Your task to perform on an android device: delete a single message in the gmail app Image 0: 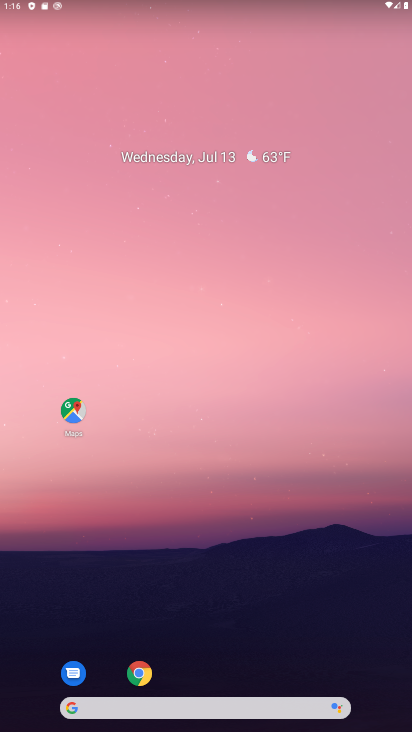
Step 0: drag from (274, 658) to (271, 285)
Your task to perform on an android device: delete a single message in the gmail app Image 1: 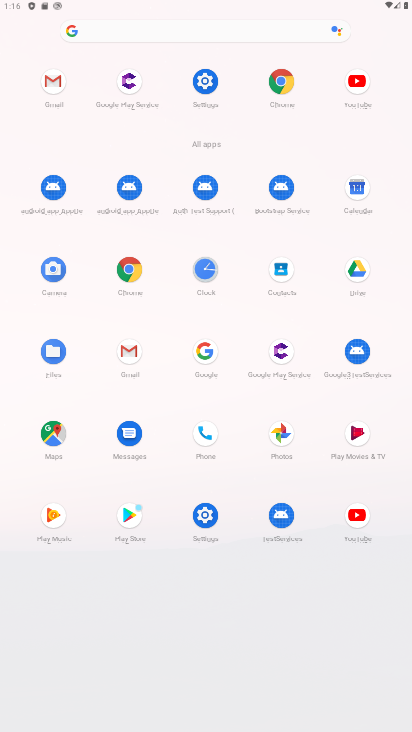
Step 1: click (121, 352)
Your task to perform on an android device: delete a single message in the gmail app Image 2: 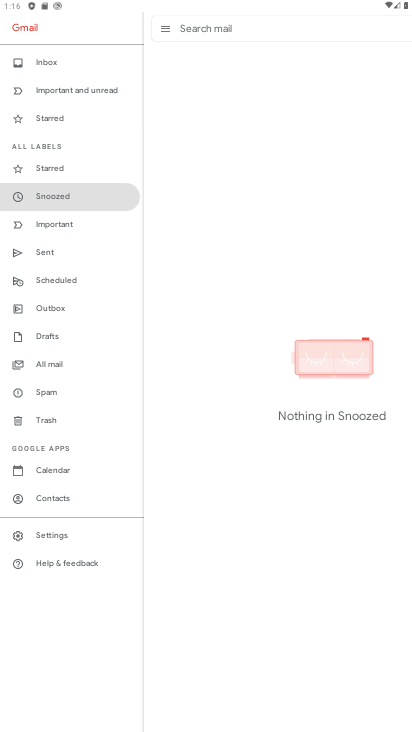
Step 2: click (51, 361)
Your task to perform on an android device: delete a single message in the gmail app Image 3: 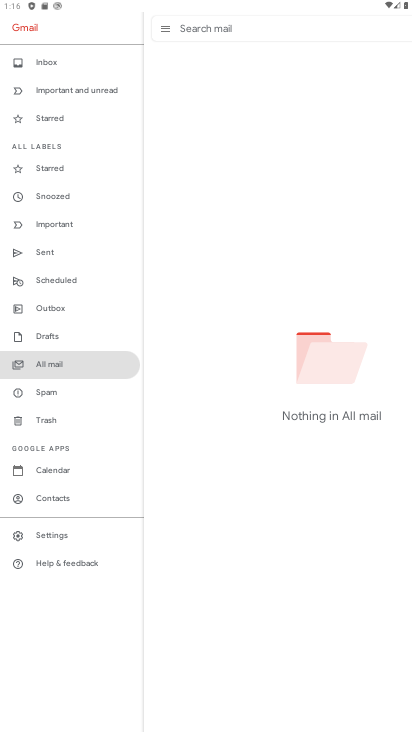
Step 3: task complete